Your task to perform on an android device: turn on wifi Image 0: 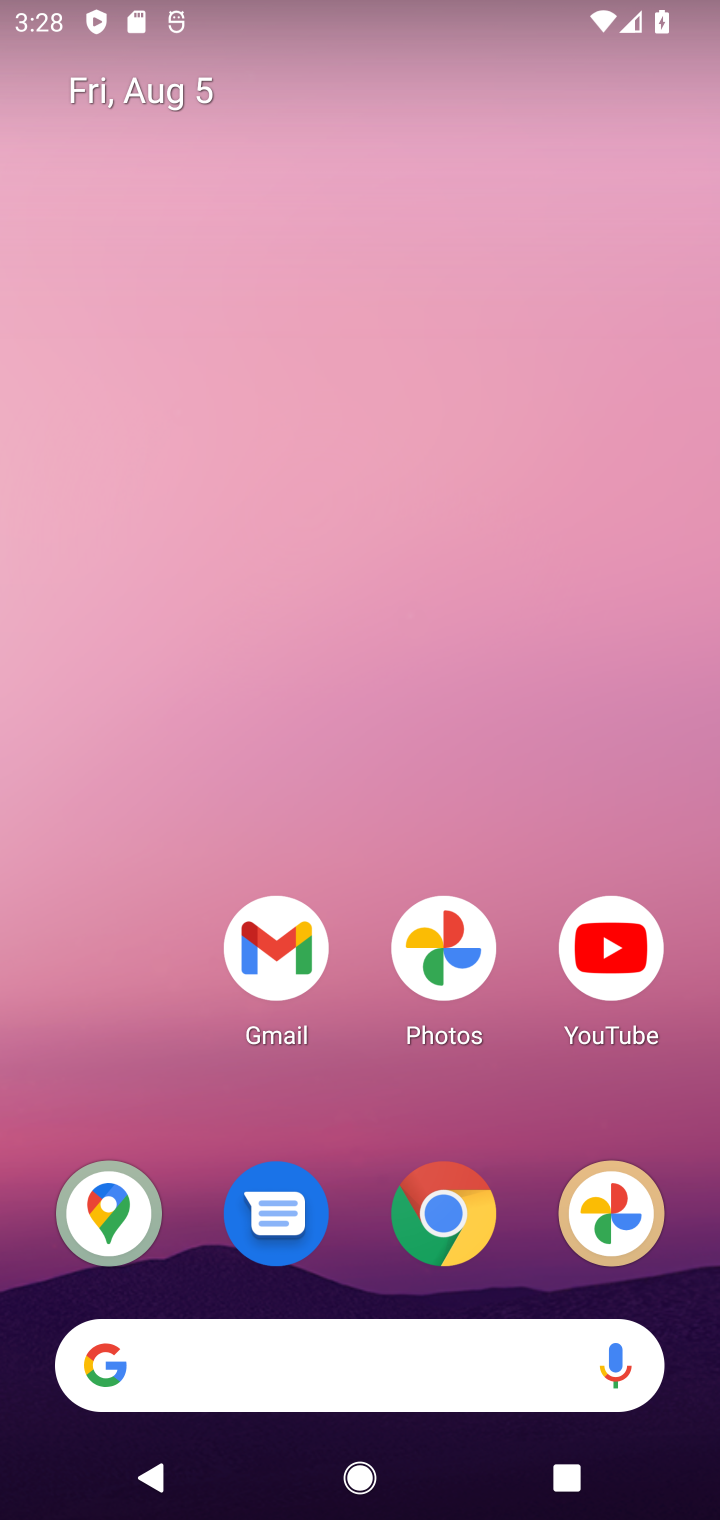
Step 0: drag from (399, 1270) to (512, 602)
Your task to perform on an android device: turn on wifi Image 1: 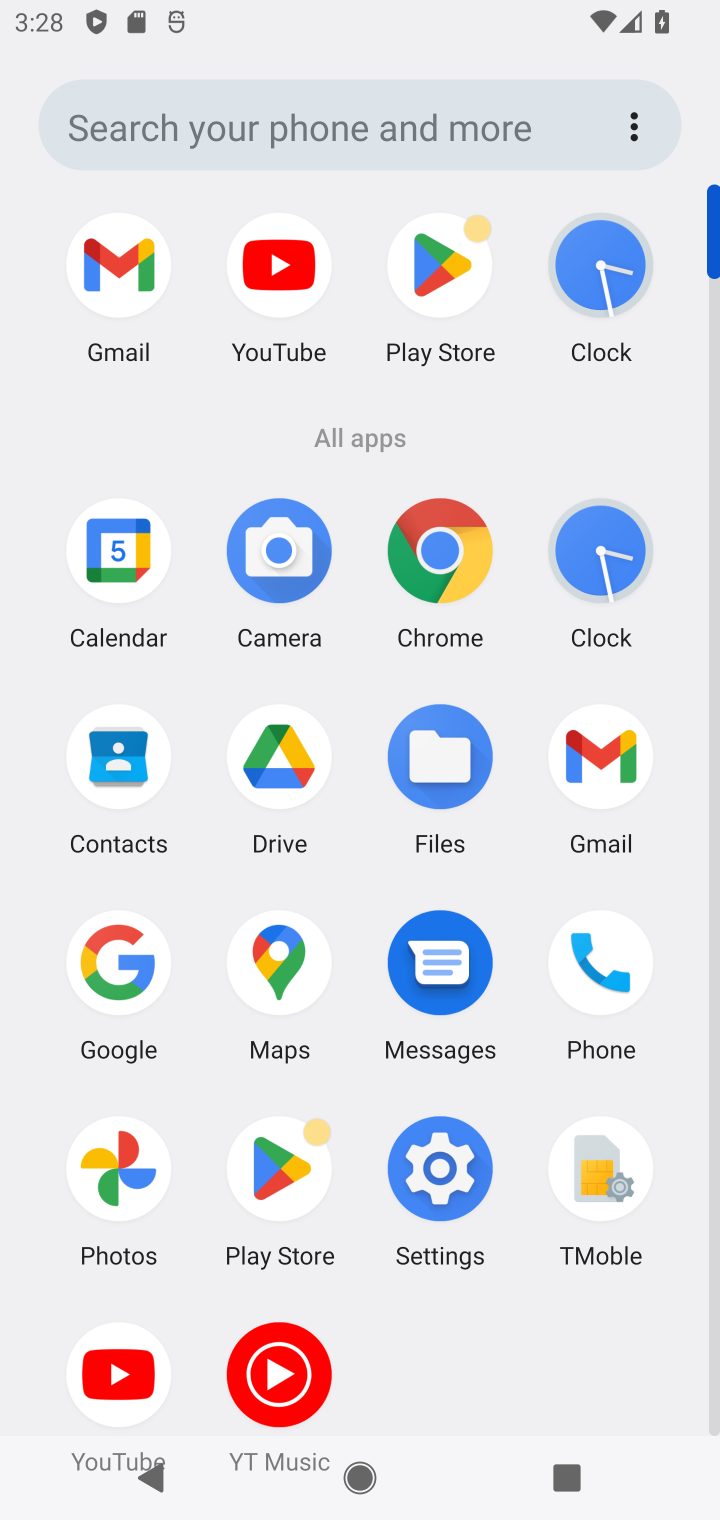
Step 1: click (451, 1170)
Your task to perform on an android device: turn on wifi Image 2: 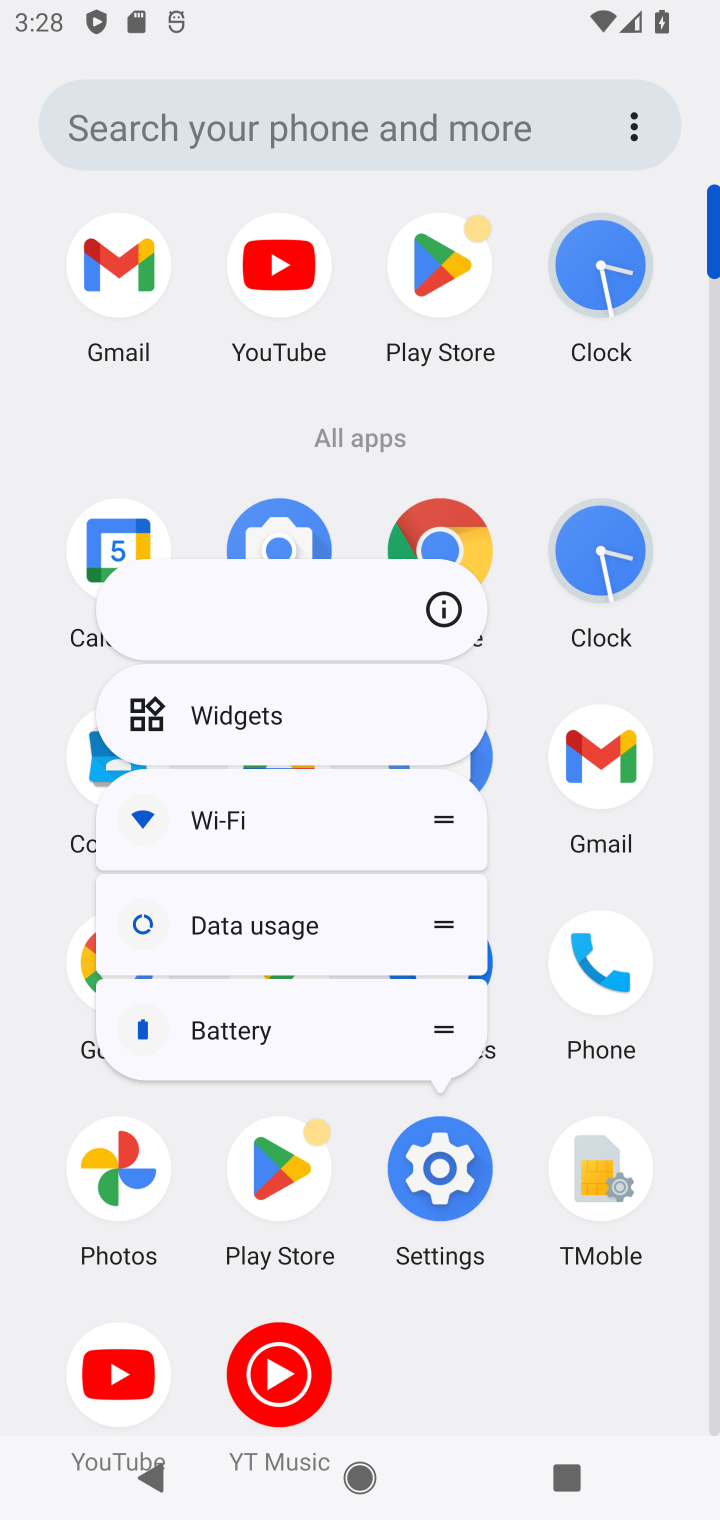
Step 2: click (441, 1240)
Your task to perform on an android device: turn on wifi Image 3: 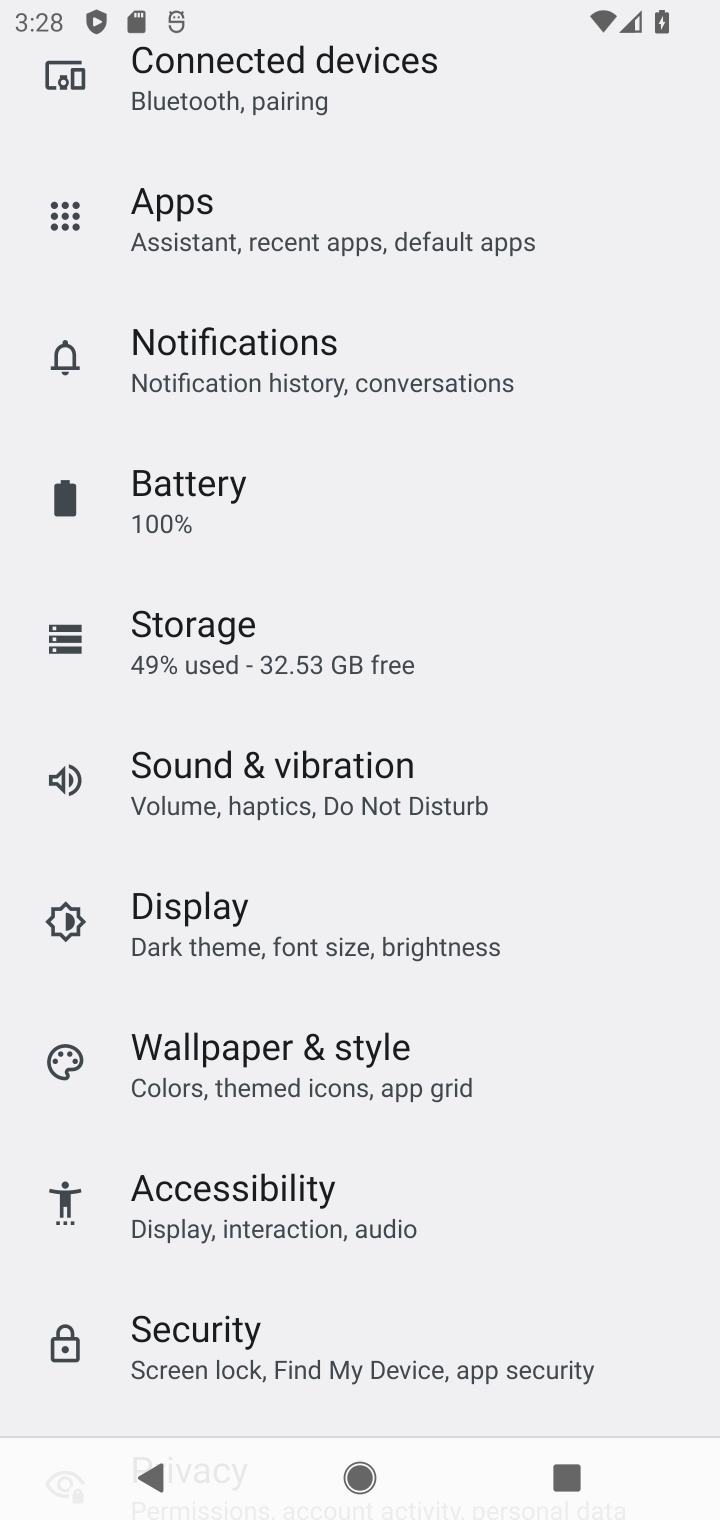
Step 3: drag from (243, 378) to (301, 1140)
Your task to perform on an android device: turn on wifi Image 4: 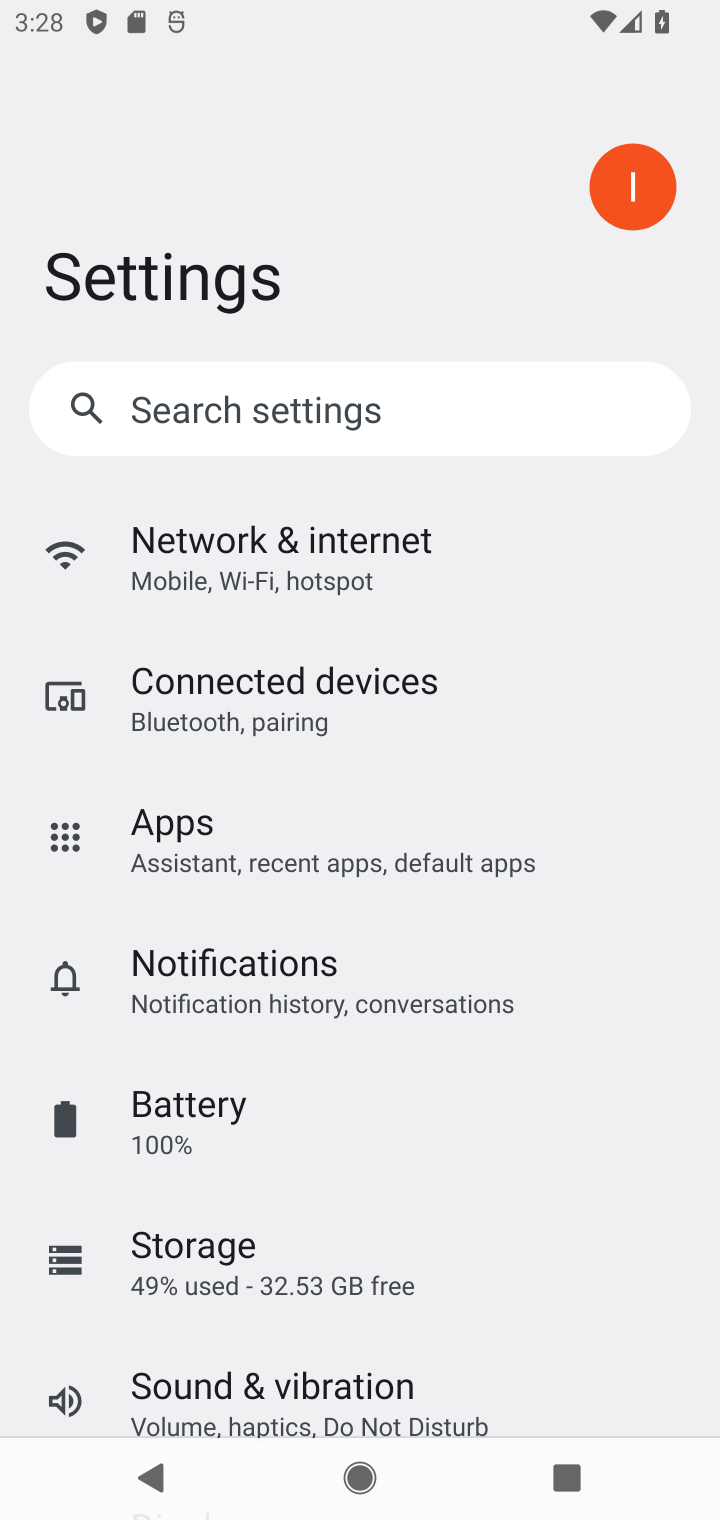
Step 4: click (231, 246)
Your task to perform on an android device: turn on wifi Image 5: 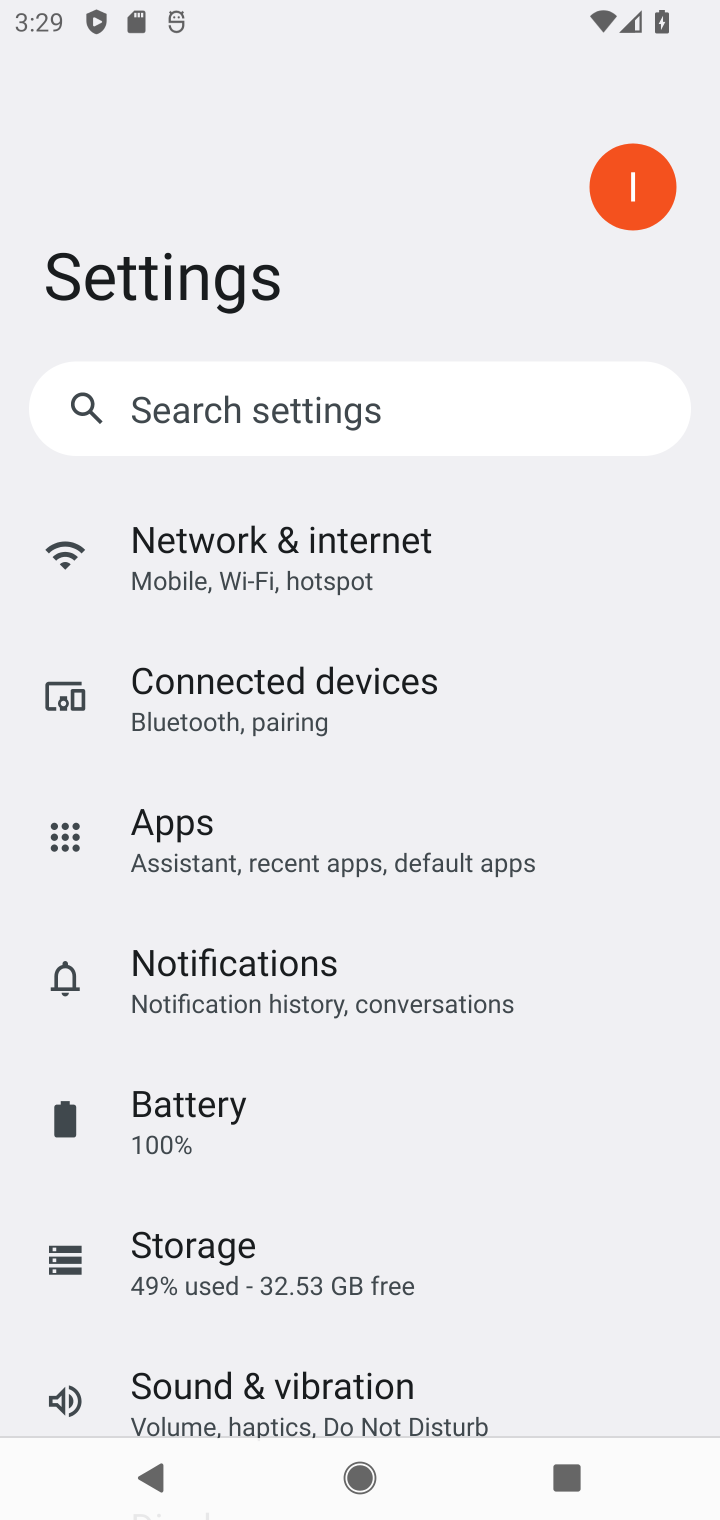
Step 5: click (255, 560)
Your task to perform on an android device: turn on wifi Image 6: 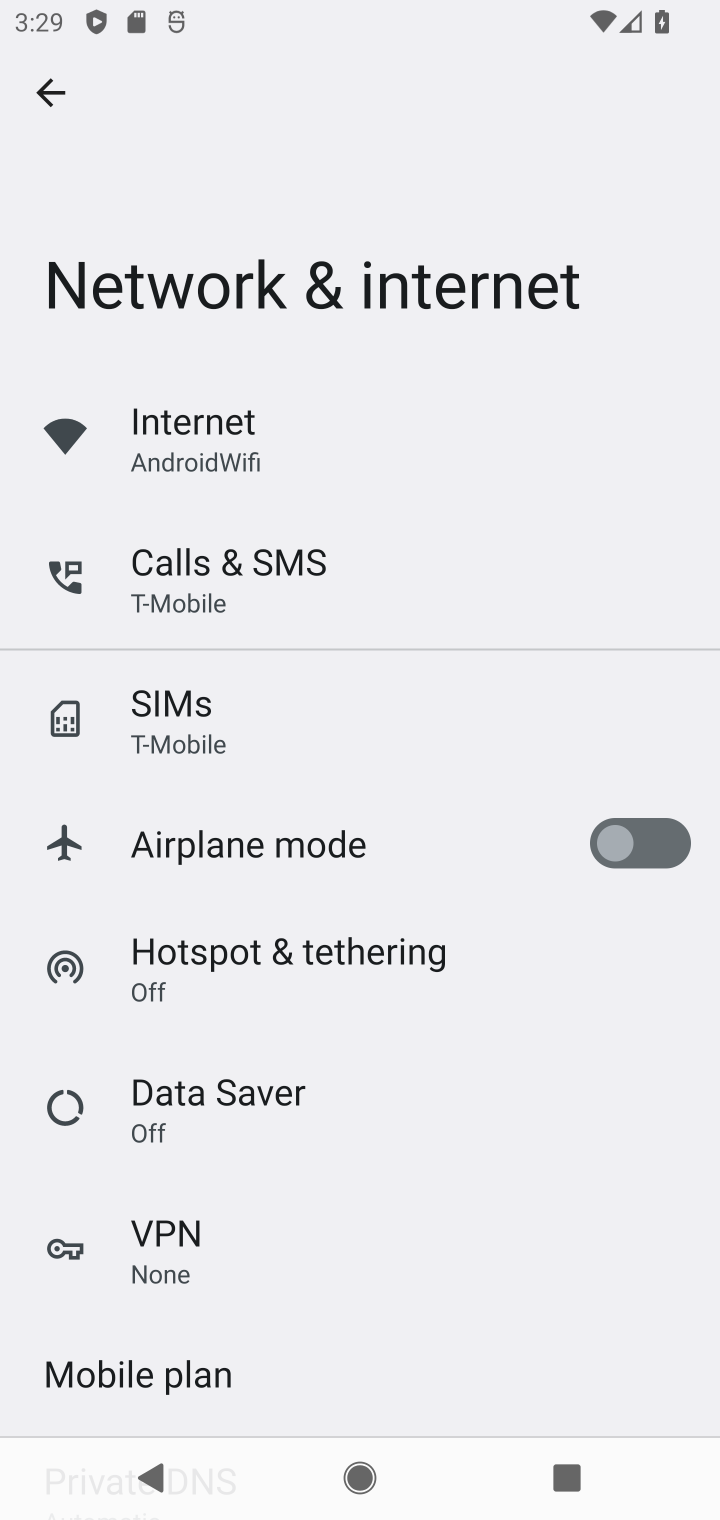
Step 6: click (240, 434)
Your task to perform on an android device: turn on wifi Image 7: 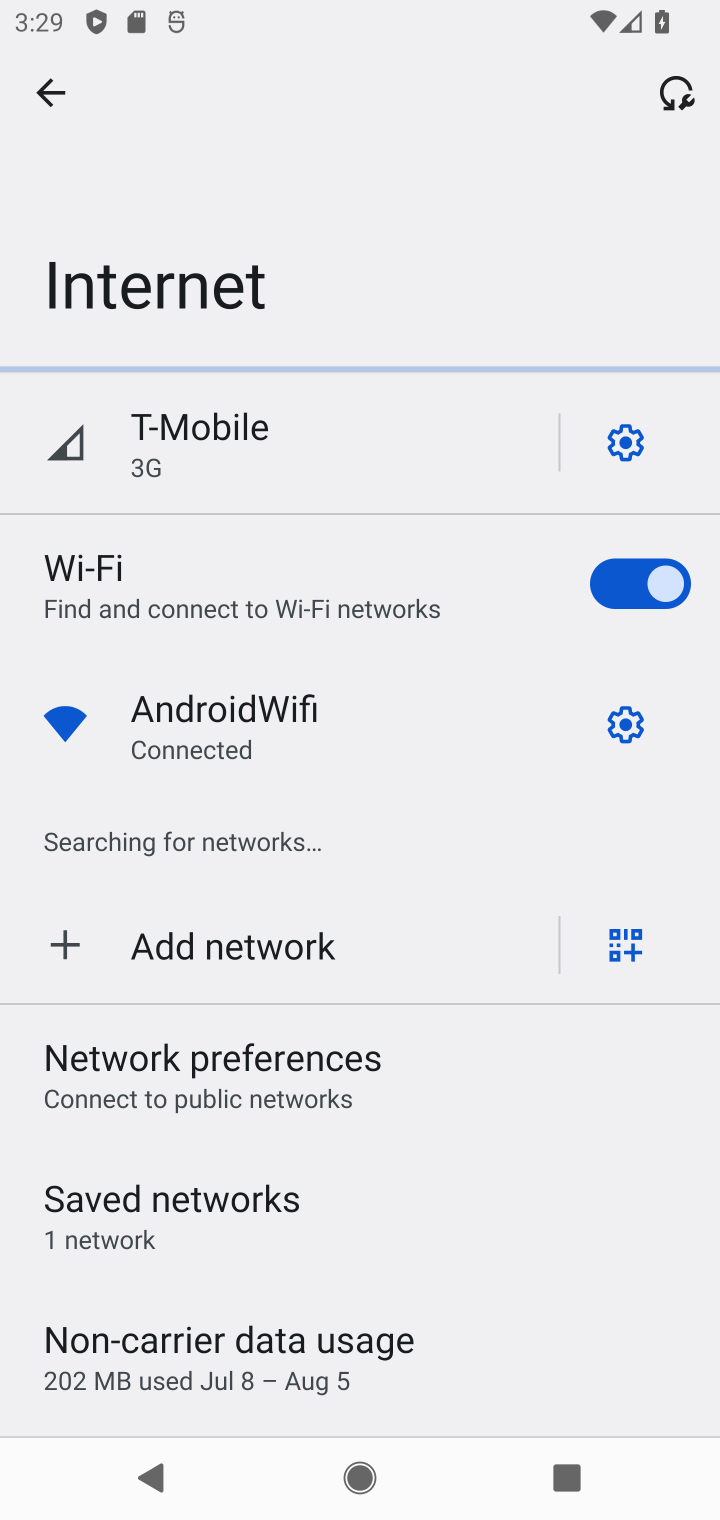
Step 7: task complete